Your task to perform on an android device: turn on sleep mode Image 0: 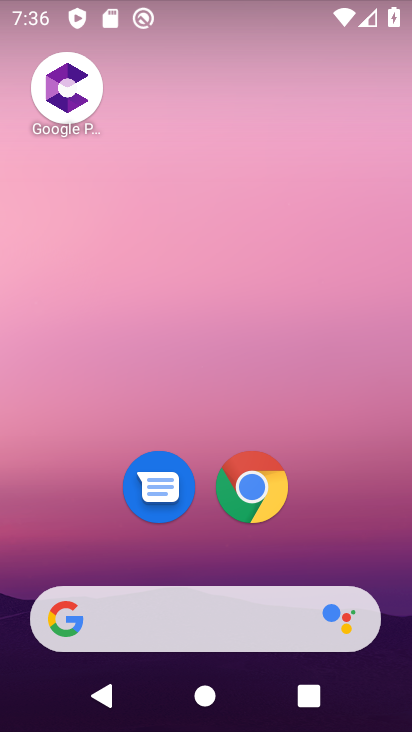
Step 0: drag from (388, 703) to (405, 54)
Your task to perform on an android device: turn on sleep mode Image 1: 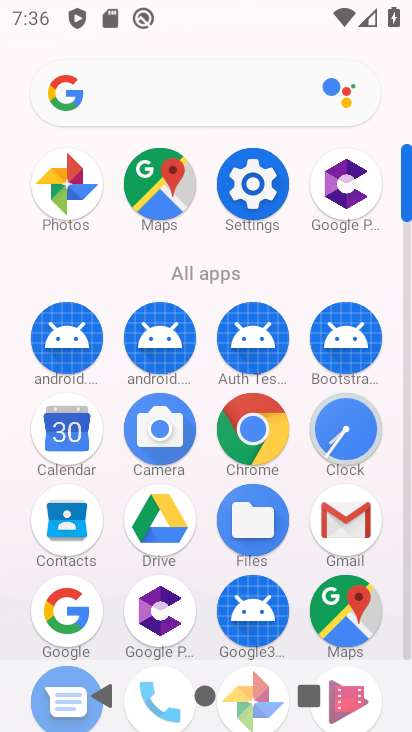
Step 1: click (238, 160)
Your task to perform on an android device: turn on sleep mode Image 2: 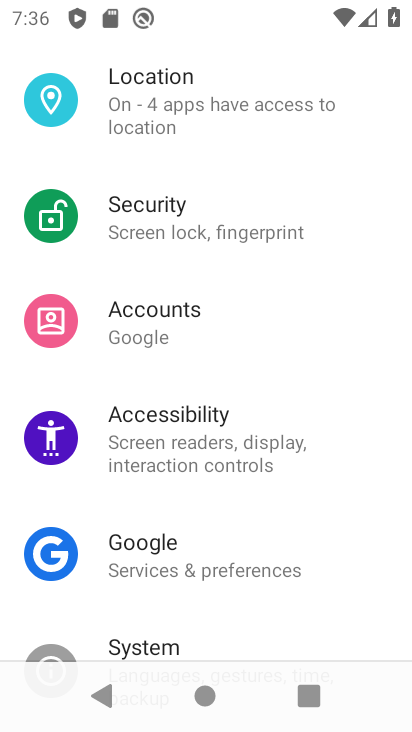
Step 2: drag from (313, 152) to (323, 617)
Your task to perform on an android device: turn on sleep mode Image 3: 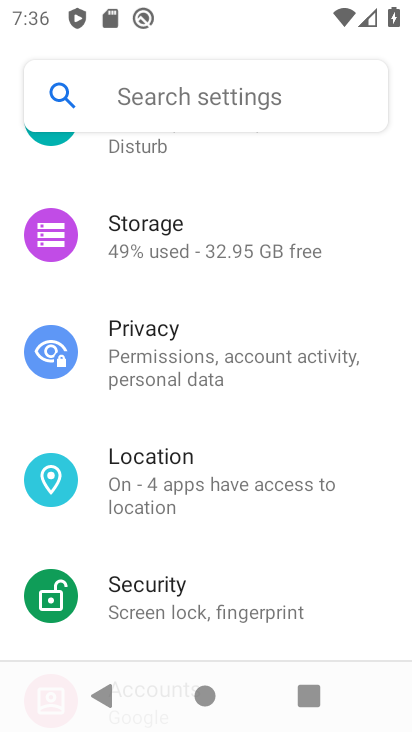
Step 3: drag from (319, 181) to (345, 530)
Your task to perform on an android device: turn on sleep mode Image 4: 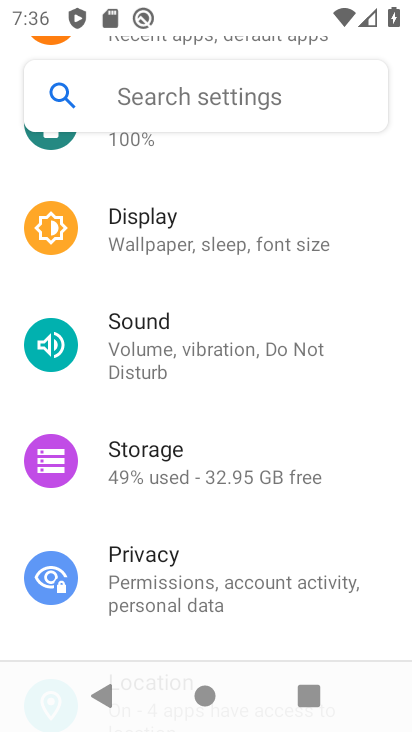
Step 4: click (169, 235)
Your task to perform on an android device: turn on sleep mode Image 5: 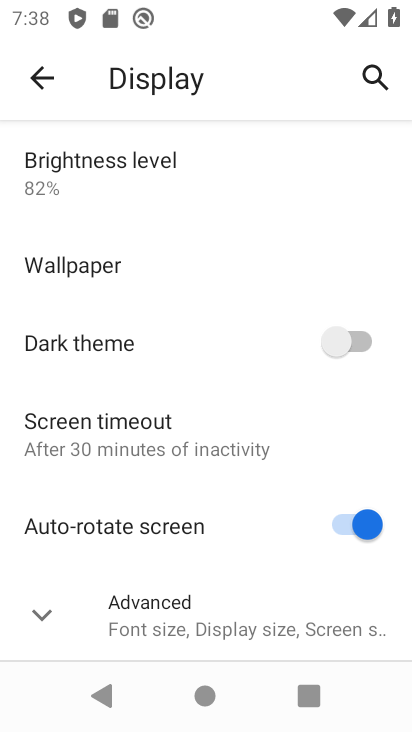
Step 5: task complete